Your task to perform on an android device: What is the news today? Image 0: 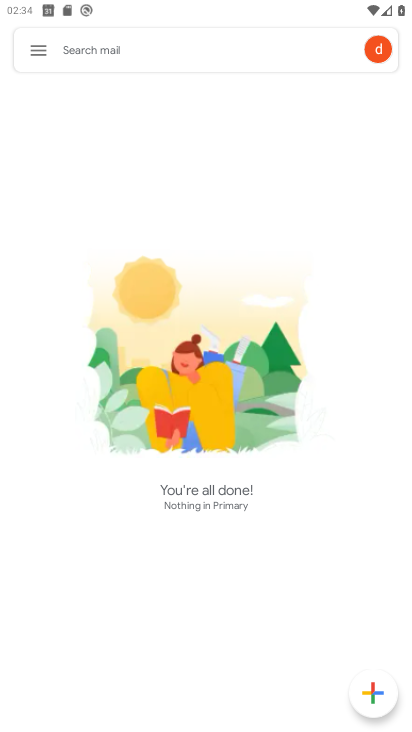
Step 0: press home button
Your task to perform on an android device: What is the news today? Image 1: 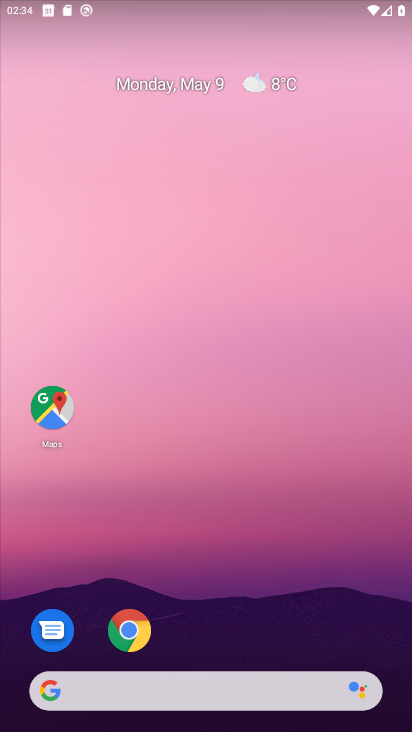
Step 1: click (166, 695)
Your task to perform on an android device: What is the news today? Image 2: 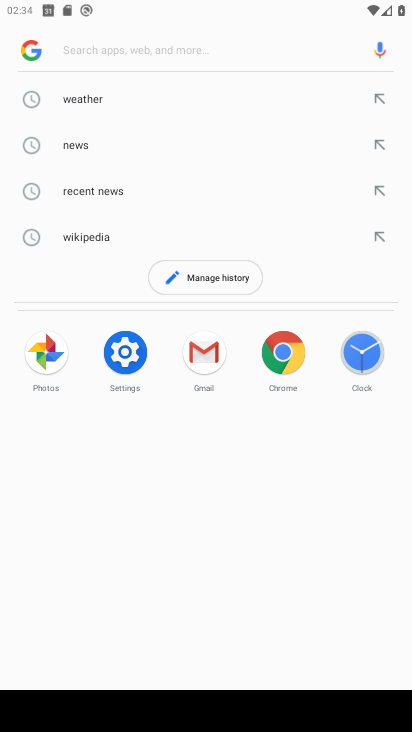
Step 2: type "news today"
Your task to perform on an android device: What is the news today? Image 3: 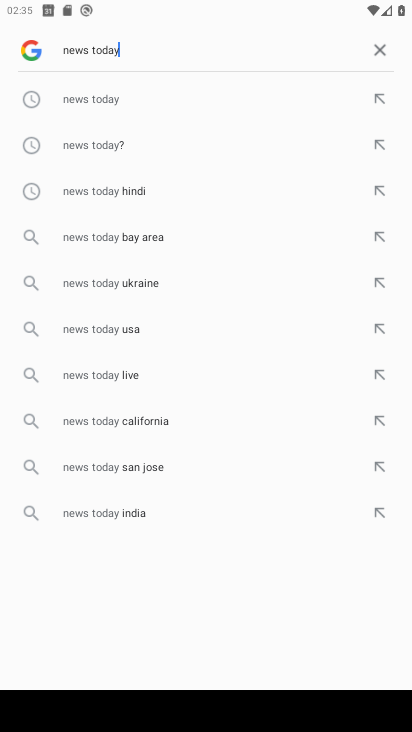
Step 3: click (118, 148)
Your task to perform on an android device: What is the news today? Image 4: 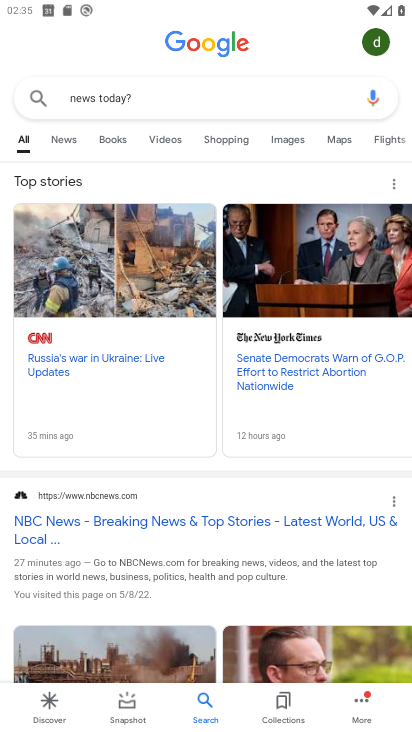
Step 4: task complete